Your task to perform on an android device: Go to location settings Image 0: 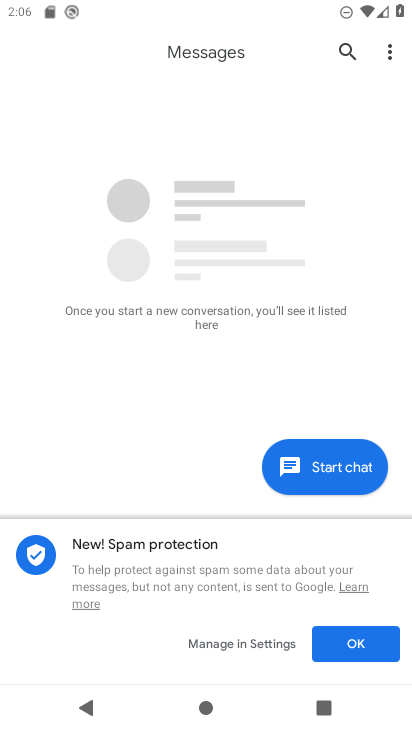
Step 0: press home button
Your task to perform on an android device: Go to location settings Image 1: 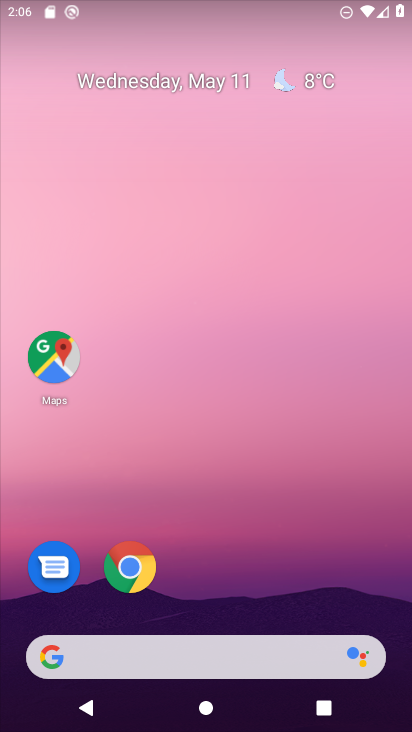
Step 1: drag from (298, 582) to (223, 164)
Your task to perform on an android device: Go to location settings Image 2: 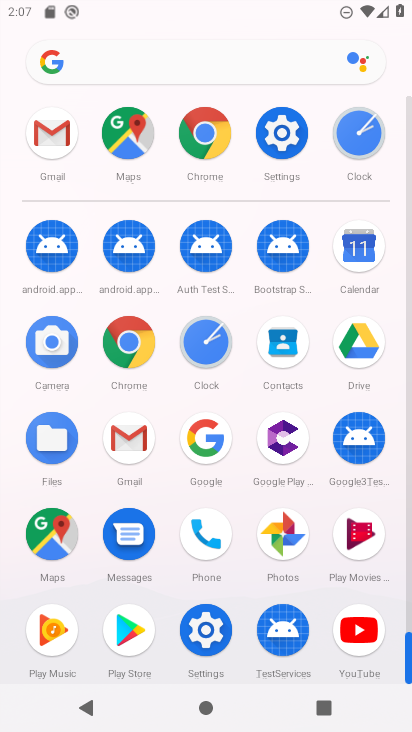
Step 2: click (276, 143)
Your task to perform on an android device: Go to location settings Image 3: 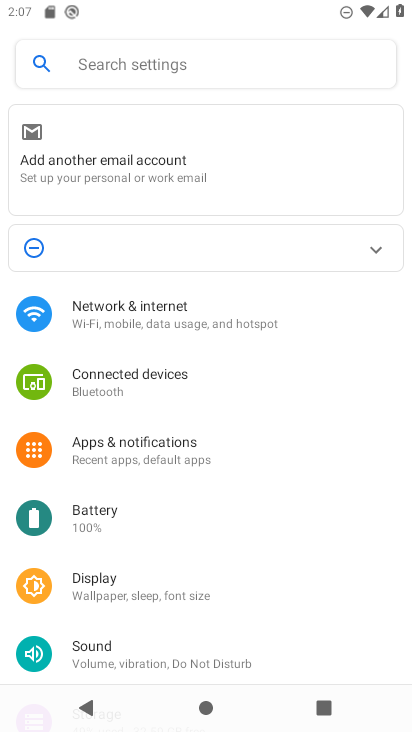
Step 3: drag from (239, 587) to (161, 349)
Your task to perform on an android device: Go to location settings Image 4: 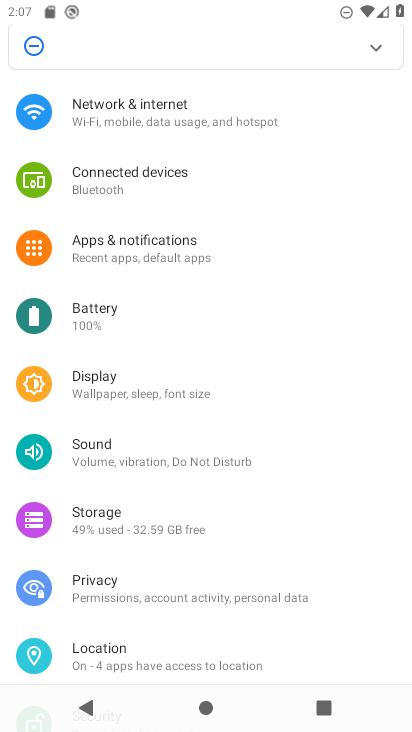
Step 4: click (168, 652)
Your task to perform on an android device: Go to location settings Image 5: 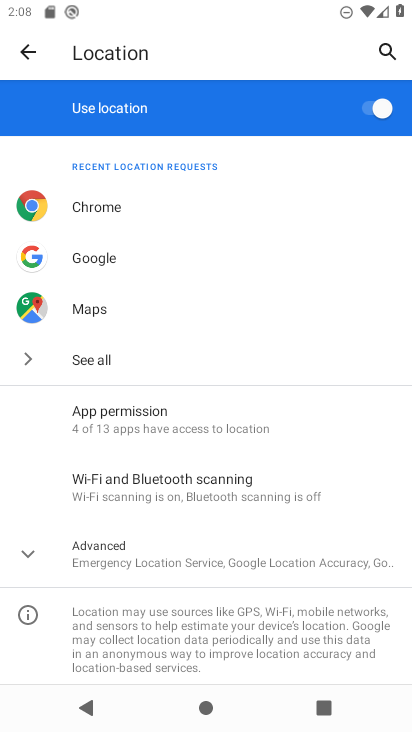
Step 5: task complete